Your task to perform on an android device: change the upload size in google photos Image 0: 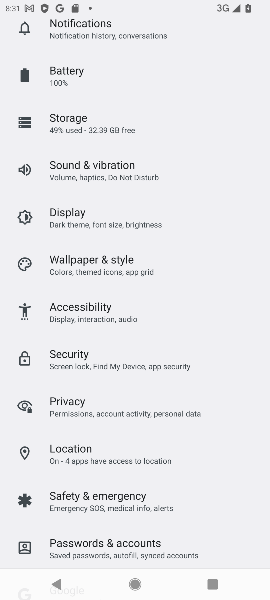
Step 0: press home button
Your task to perform on an android device: change the upload size in google photos Image 1: 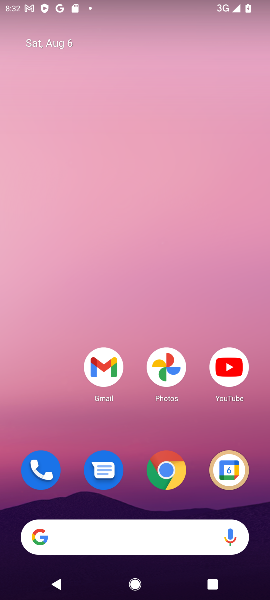
Step 1: click (165, 371)
Your task to perform on an android device: change the upload size in google photos Image 2: 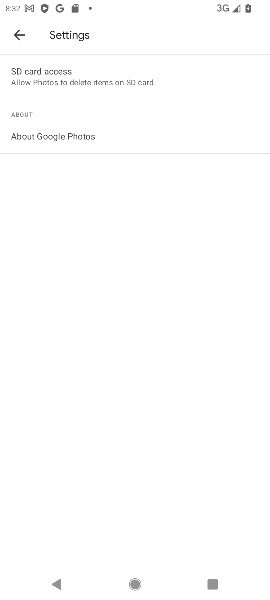
Step 2: click (12, 38)
Your task to perform on an android device: change the upload size in google photos Image 3: 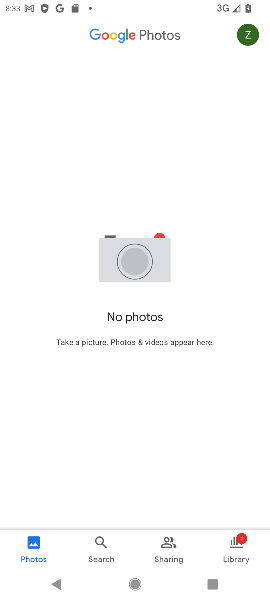
Step 3: click (241, 35)
Your task to perform on an android device: change the upload size in google photos Image 4: 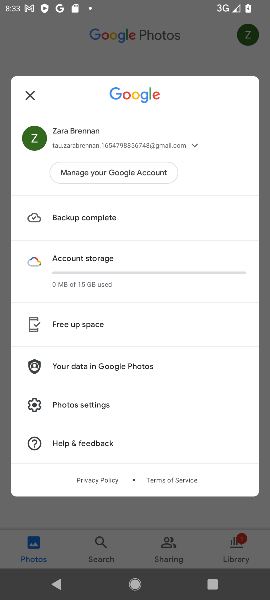
Step 4: click (75, 406)
Your task to perform on an android device: change the upload size in google photos Image 5: 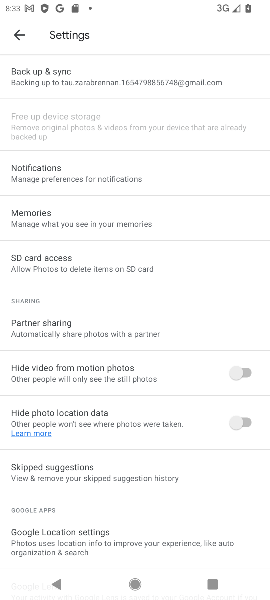
Step 5: click (148, 70)
Your task to perform on an android device: change the upload size in google photos Image 6: 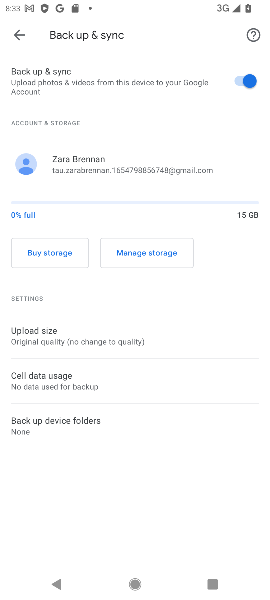
Step 6: click (96, 343)
Your task to perform on an android device: change the upload size in google photos Image 7: 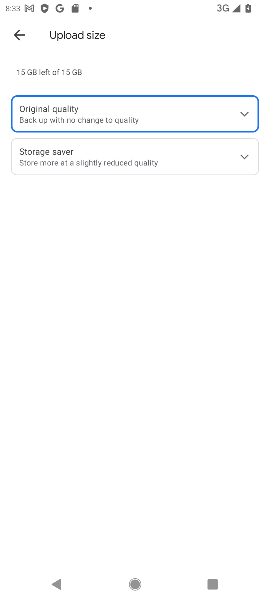
Step 7: click (91, 162)
Your task to perform on an android device: change the upload size in google photos Image 8: 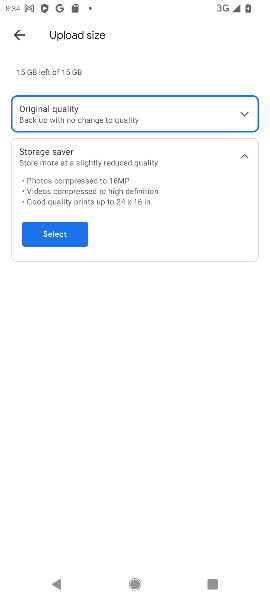
Step 8: click (68, 238)
Your task to perform on an android device: change the upload size in google photos Image 9: 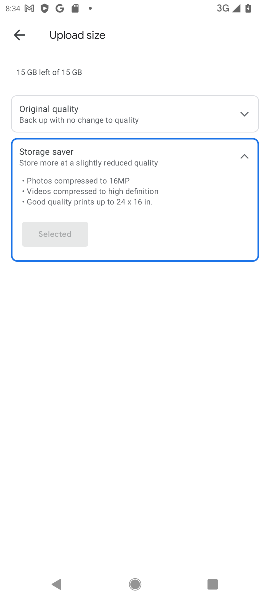
Step 9: task complete